Your task to perform on an android device: Show me productivity apps on the Play Store Image 0: 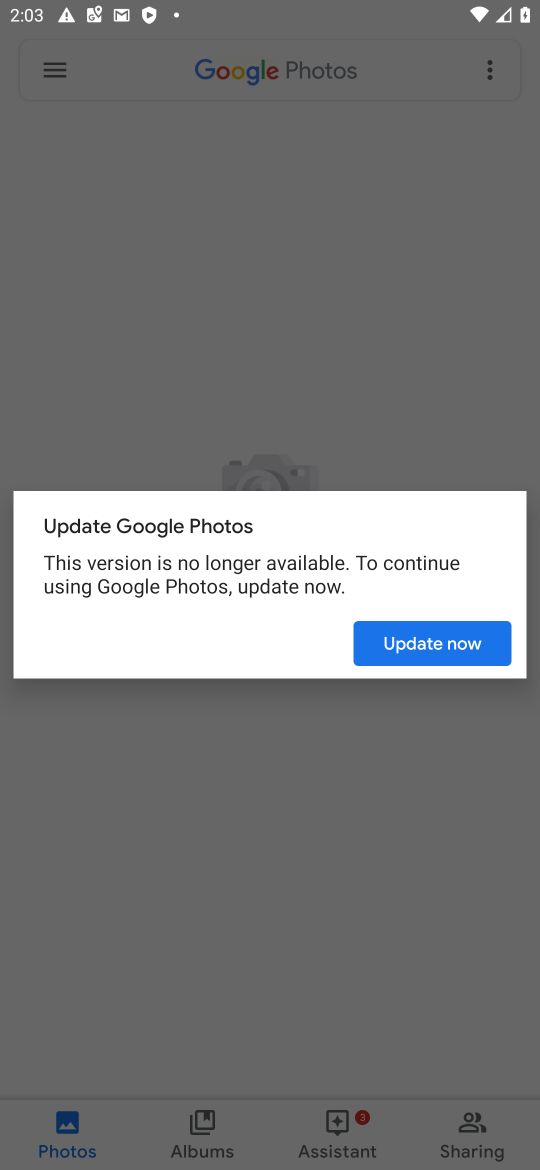
Step 0: press home button
Your task to perform on an android device: Show me productivity apps on the Play Store Image 1: 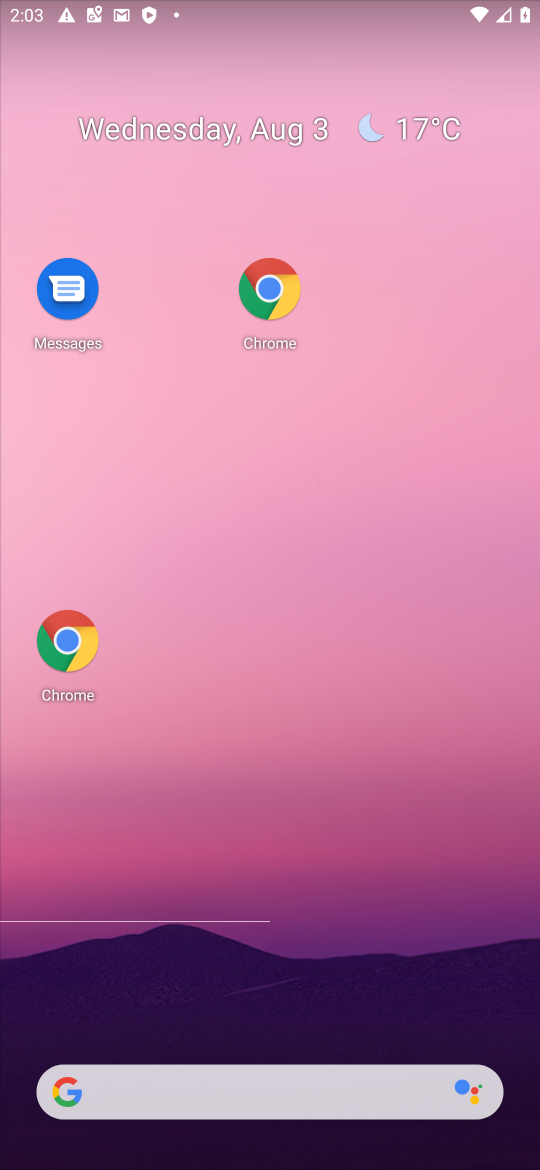
Step 1: drag from (422, 972) to (431, 294)
Your task to perform on an android device: Show me productivity apps on the Play Store Image 2: 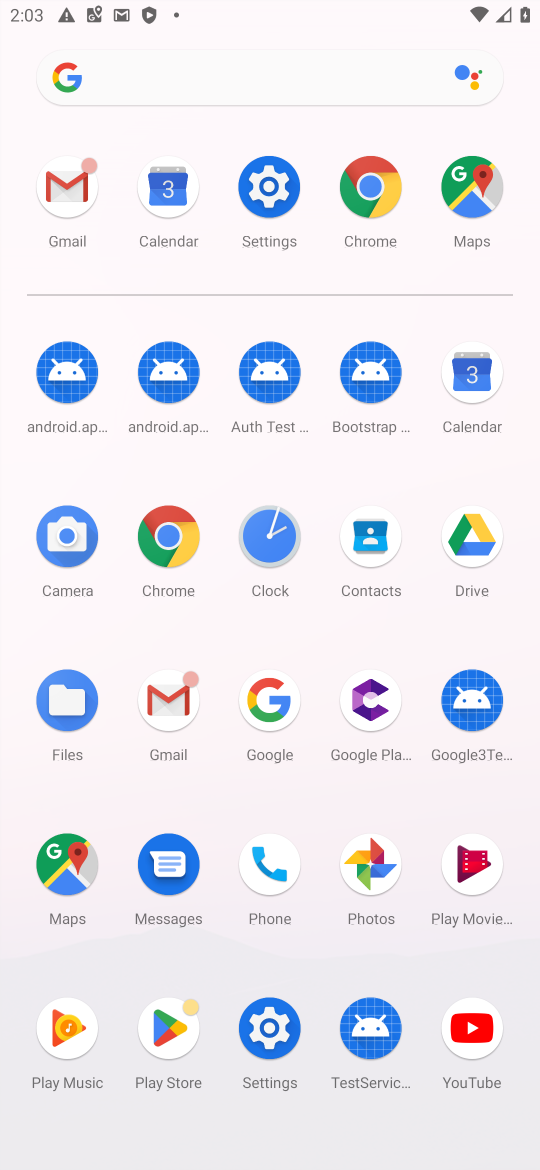
Step 2: click (172, 1043)
Your task to perform on an android device: Show me productivity apps on the Play Store Image 3: 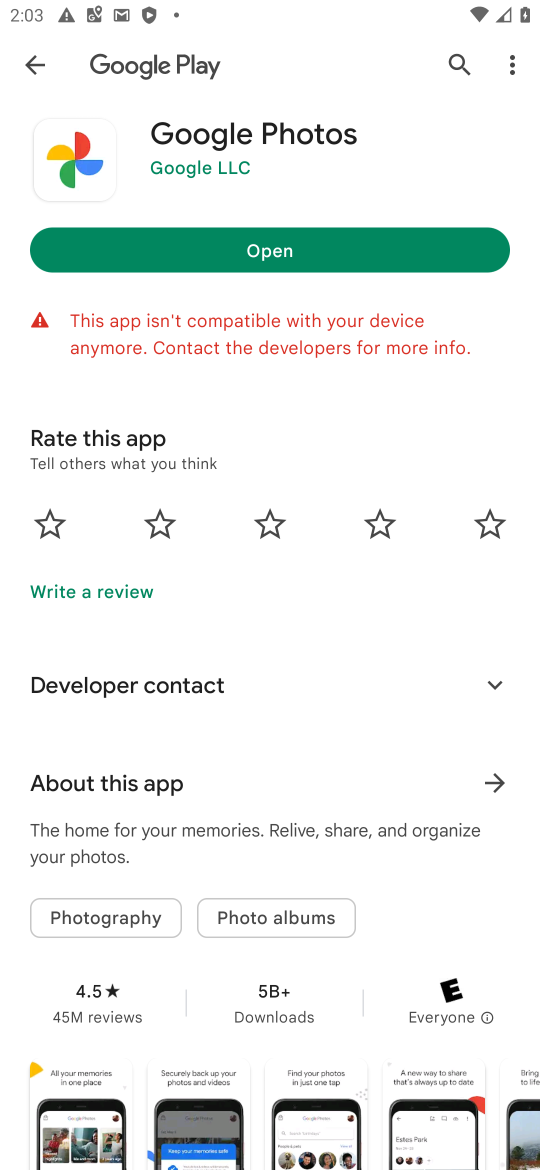
Step 3: click (21, 90)
Your task to perform on an android device: Show me productivity apps on the Play Store Image 4: 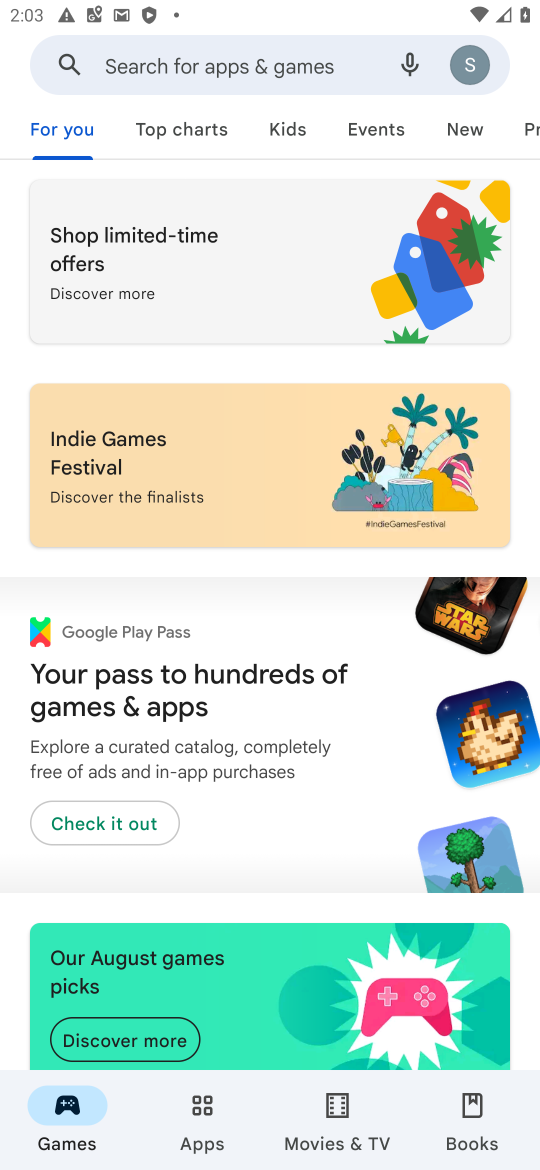
Step 4: click (207, 1108)
Your task to perform on an android device: Show me productivity apps on the Play Store Image 5: 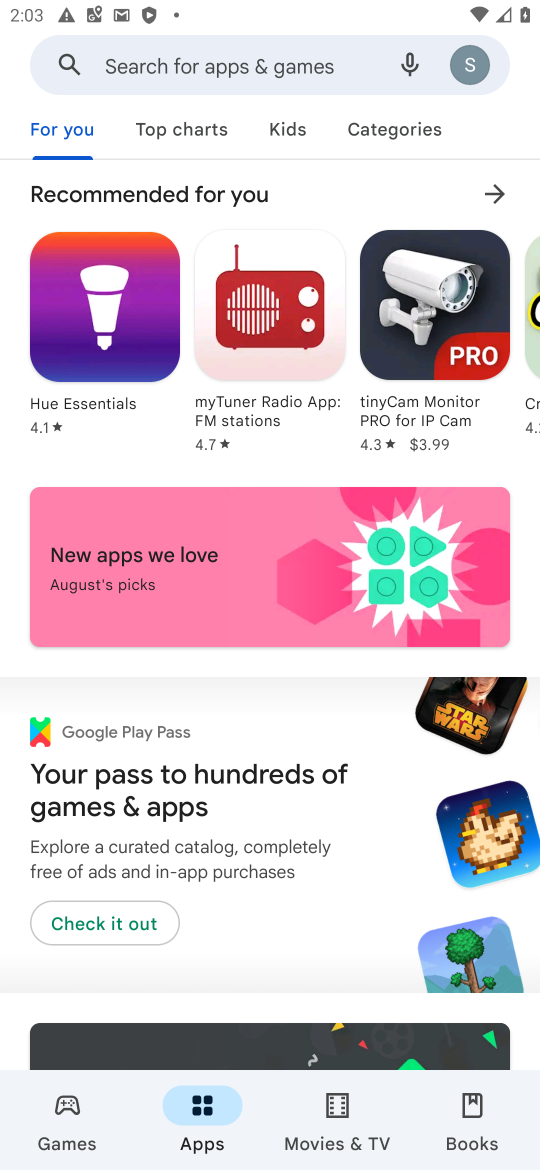
Step 5: click (209, 126)
Your task to perform on an android device: Show me productivity apps on the Play Store Image 6: 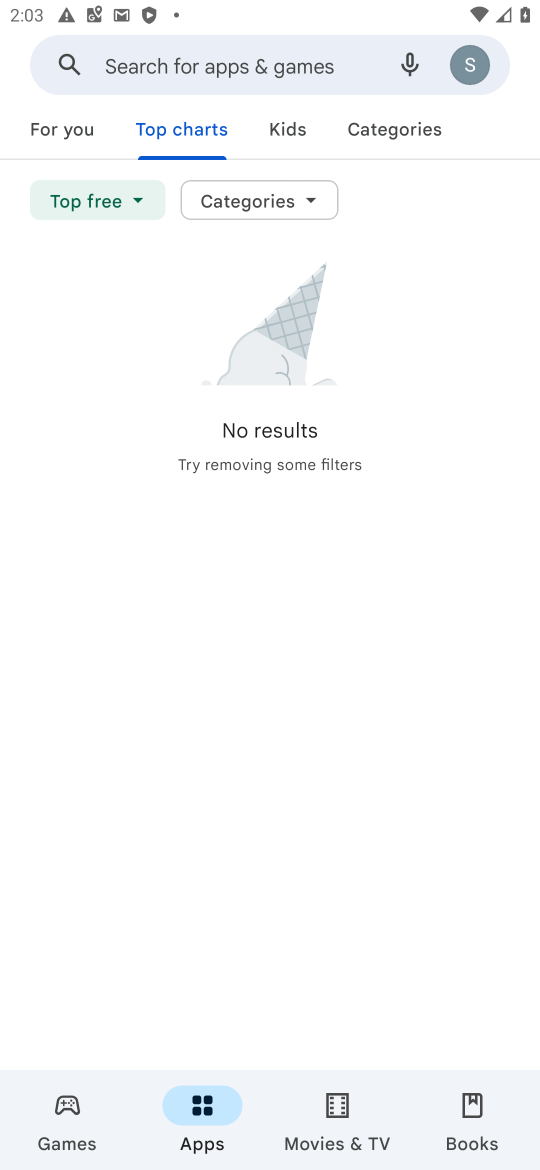
Step 6: click (234, 207)
Your task to perform on an android device: Show me productivity apps on the Play Store Image 7: 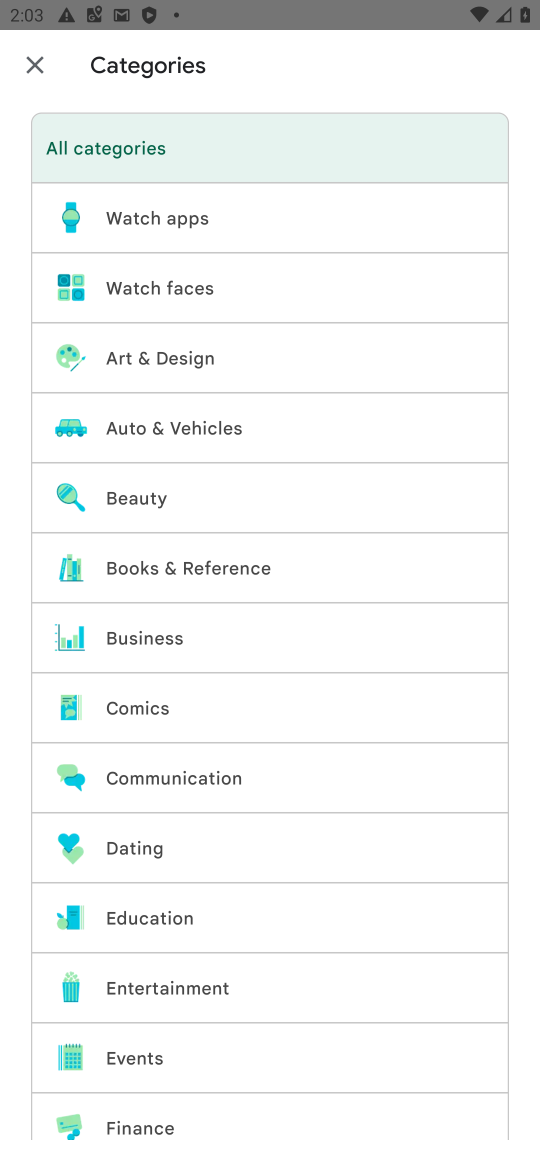
Step 7: drag from (231, 1135) to (263, 349)
Your task to perform on an android device: Show me productivity apps on the Play Store Image 8: 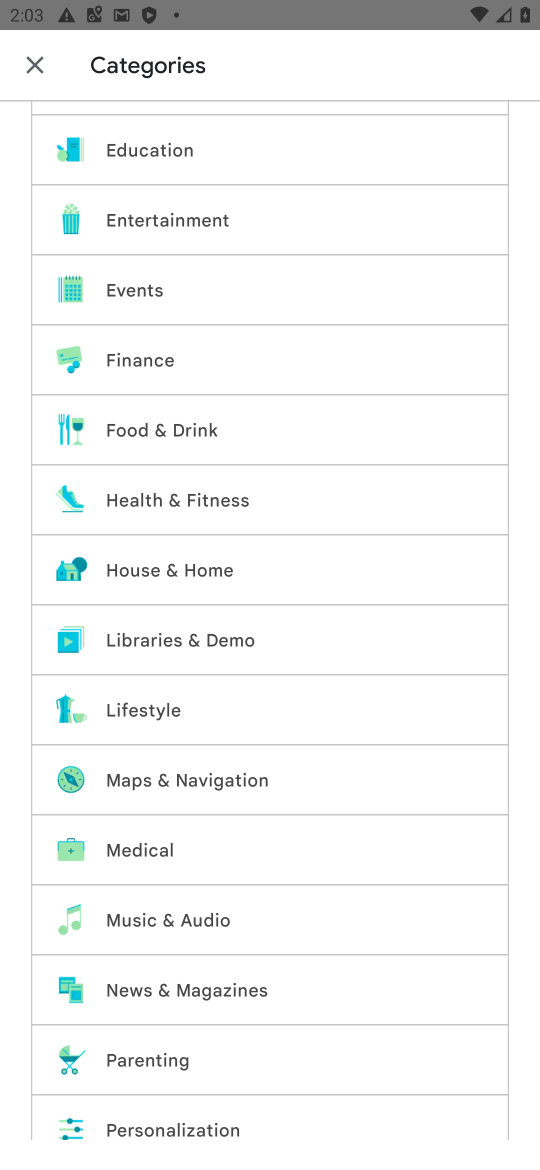
Step 8: drag from (275, 1100) to (274, 677)
Your task to perform on an android device: Show me productivity apps on the Play Store Image 9: 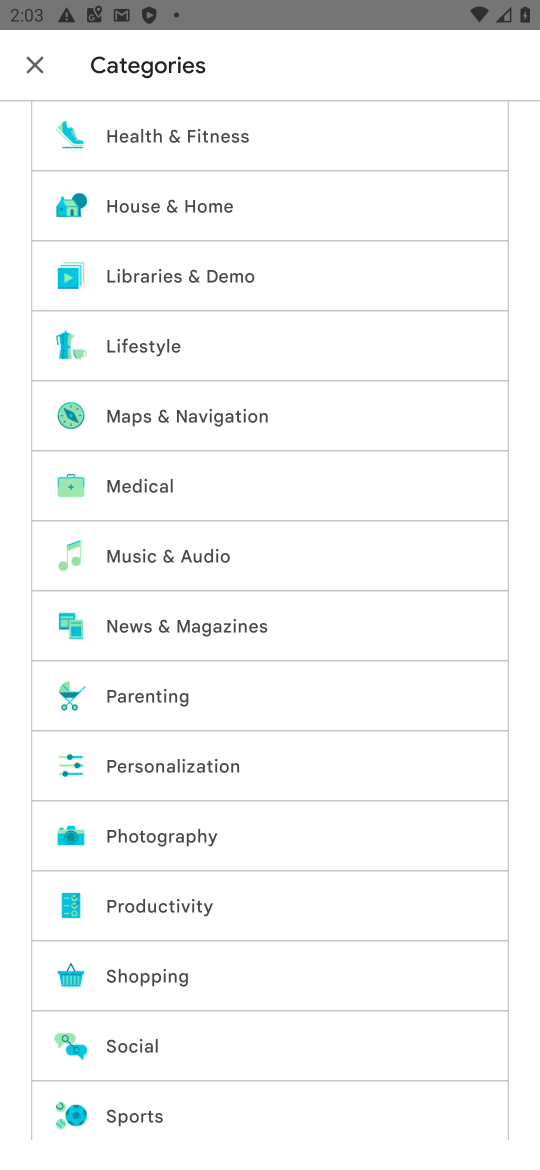
Step 9: click (282, 890)
Your task to perform on an android device: Show me productivity apps on the Play Store Image 10: 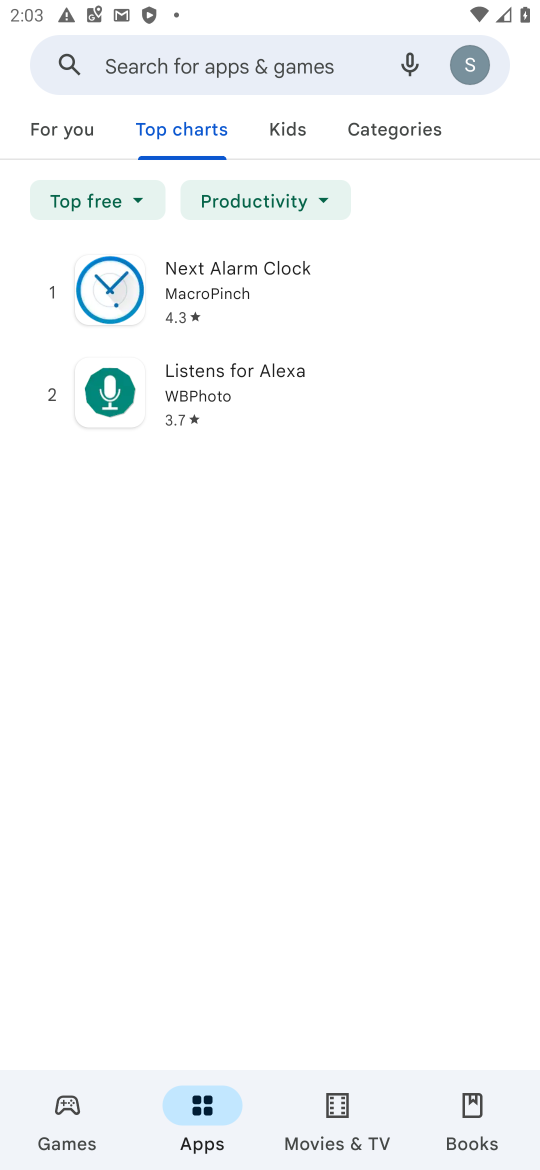
Step 10: task complete